Your task to perform on an android device: toggle location history Image 0: 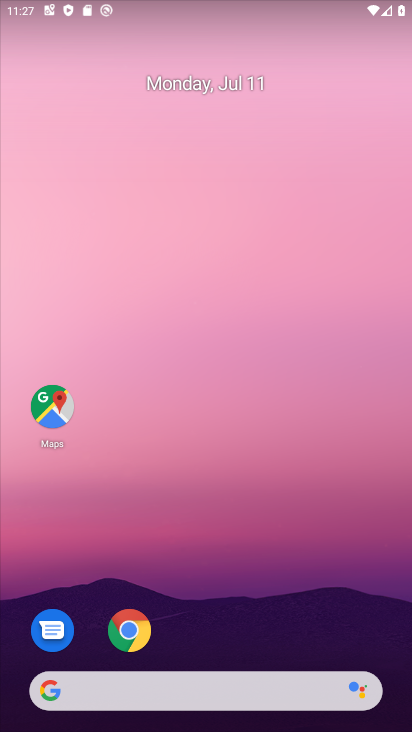
Step 0: drag from (190, 621) to (227, 110)
Your task to perform on an android device: toggle location history Image 1: 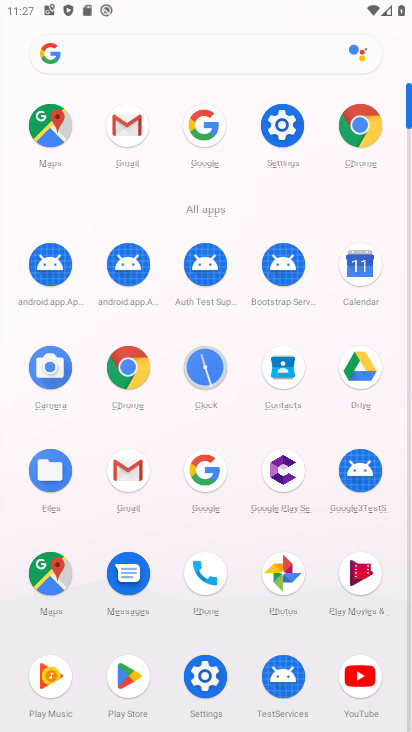
Step 1: click (277, 125)
Your task to perform on an android device: toggle location history Image 2: 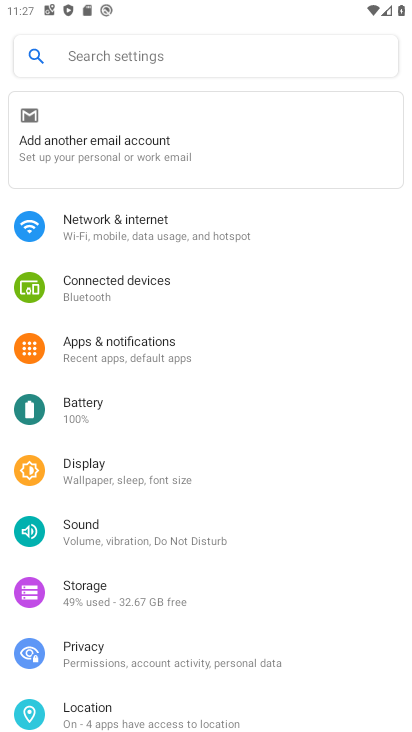
Step 2: drag from (180, 655) to (167, 446)
Your task to perform on an android device: toggle location history Image 3: 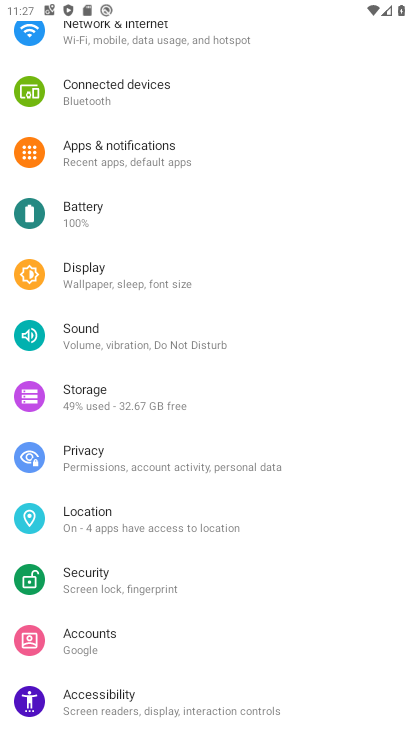
Step 3: click (104, 518)
Your task to perform on an android device: toggle location history Image 4: 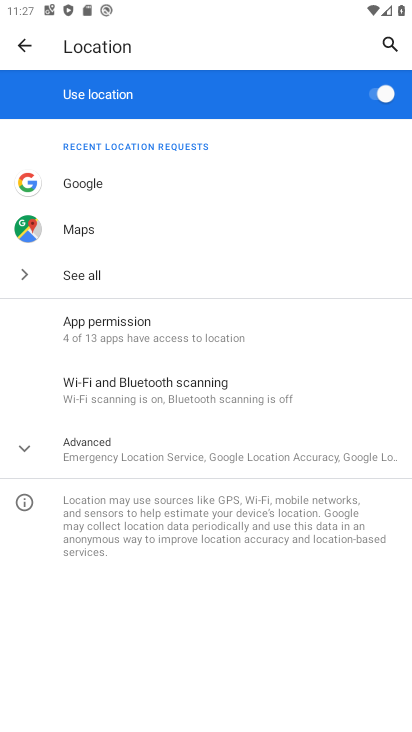
Step 4: click (92, 450)
Your task to perform on an android device: toggle location history Image 5: 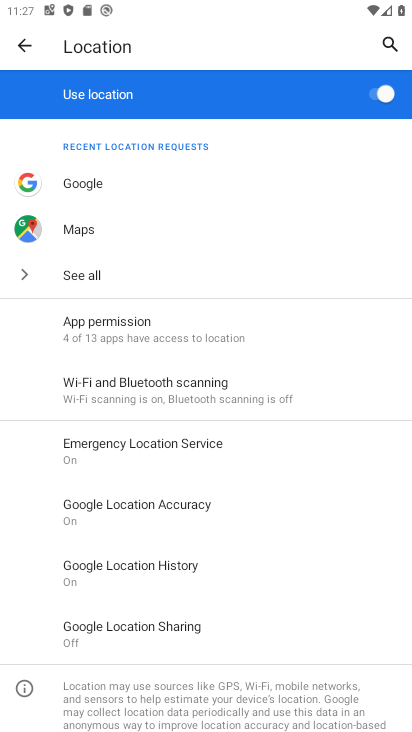
Step 5: click (181, 572)
Your task to perform on an android device: toggle location history Image 6: 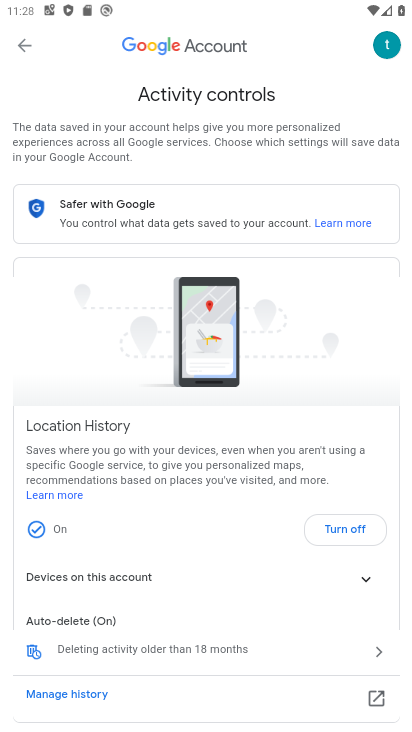
Step 6: click (348, 530)
Your task to perform on an android device: toggle location history Image 7: 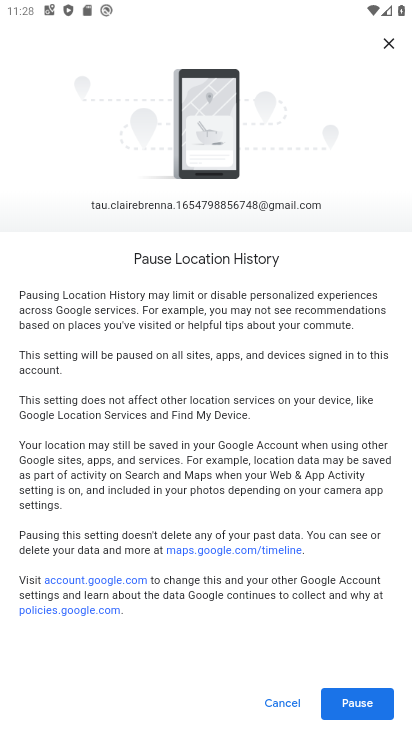
Step 7: drag from (338, 655) to (340, 530)
Your task to perform on an android device: toggle location history Image 8: 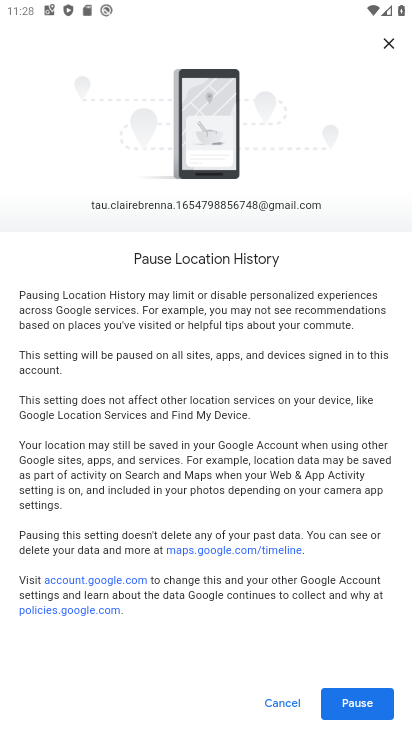
Step 8: click (360, 702)
Your task to perform on an android device: toggle location history Image 9: 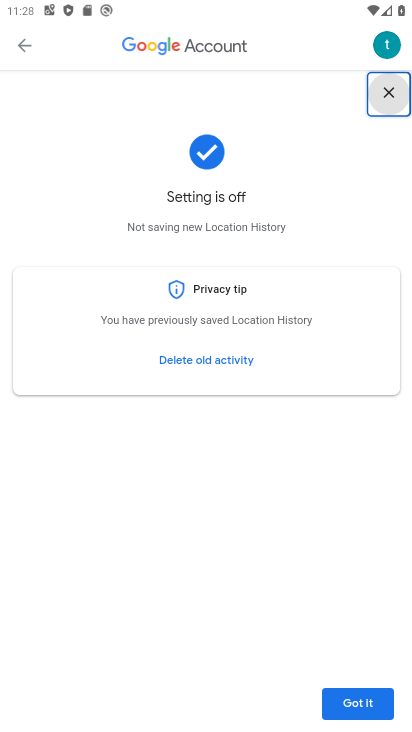
Step 9: click (363, 700)
Your task to perform on an android device: toggle location history Image 10: 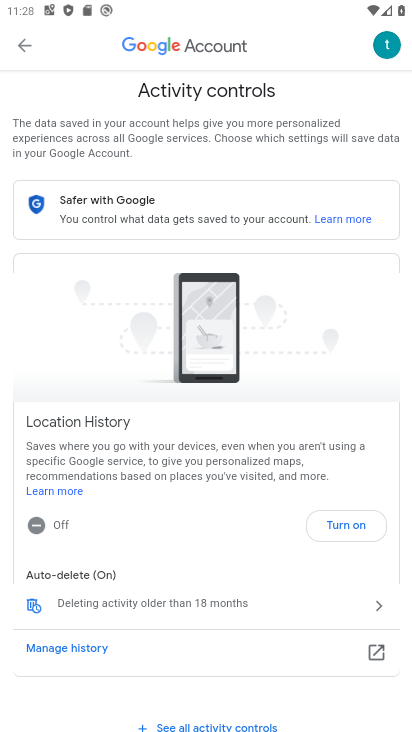
Step 10: task complete